Your task to perform on an android device: Open Youtube and go to the subscriptions tab Image 0: 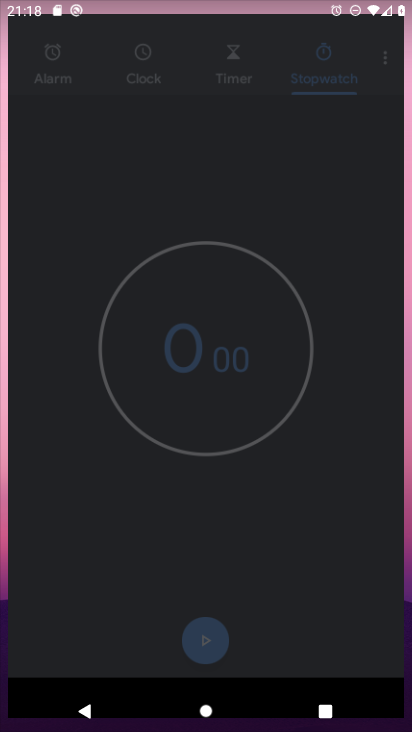
Step 0: drag from (258, 629) to (250, 306)
Your task to perform on an android device: Open Youtube and go to the subscriptions tab Image 1: 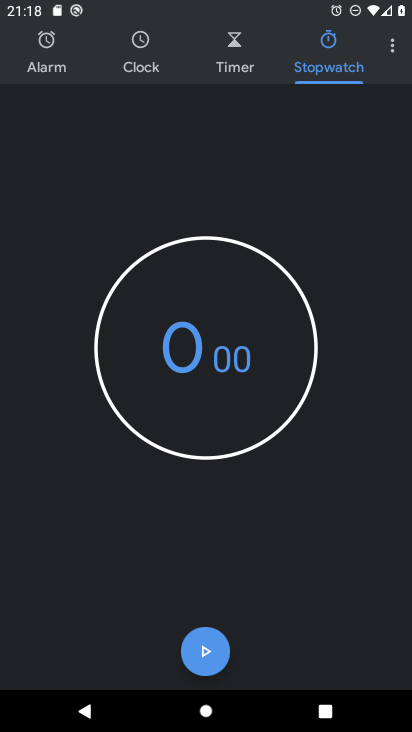
Step 1: press home button
Your task to perform on an android device: Open Youtube and go to the subscriptions tab Image 2: 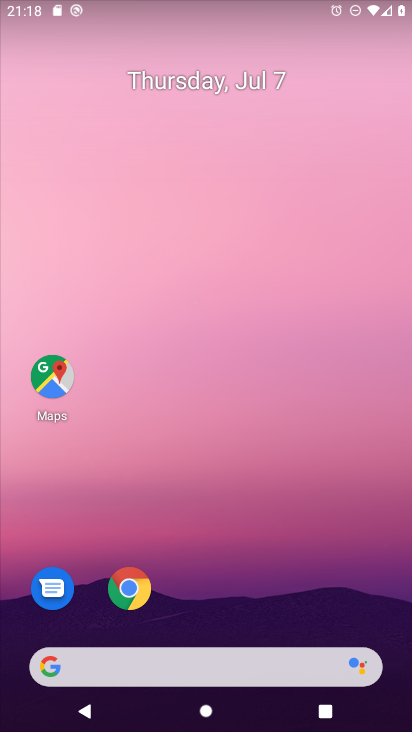
Step 2: drag from (257, 584) to (226, 284)
Your task to perform on an android device: Open Youtube and go to the subscriptions tab Image 3: 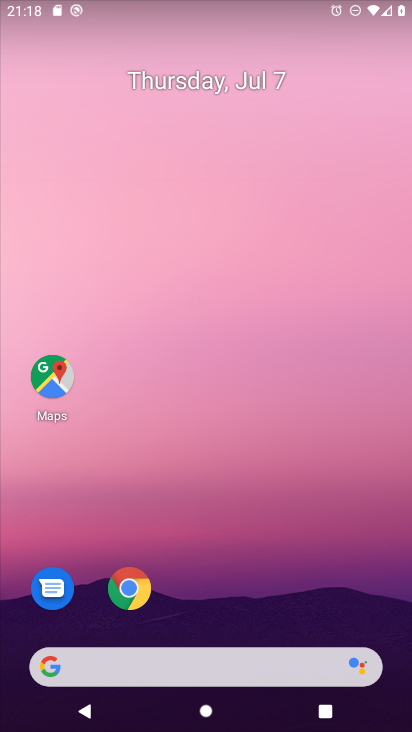
Step 3: drag from (259, 600) to (248, 305)
Your task to perform on an android device: Open Youtube and go to the subscriptions tab Image 4: 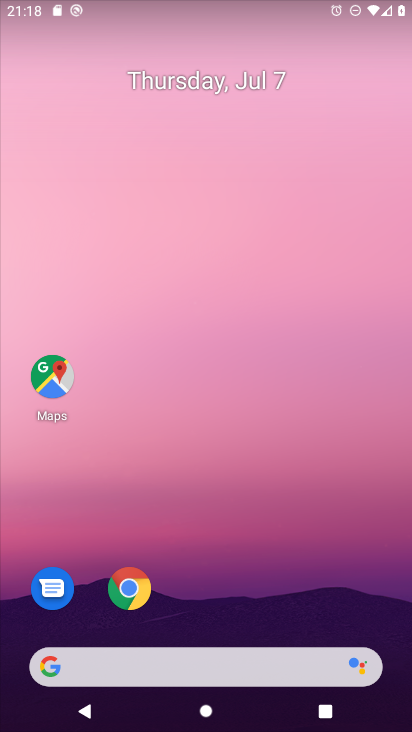
Step 4: drag from (271, 593) to (267, 230)
Your task to perform on an android device: Open Youtube and go to the subscriptions tab Image 5: 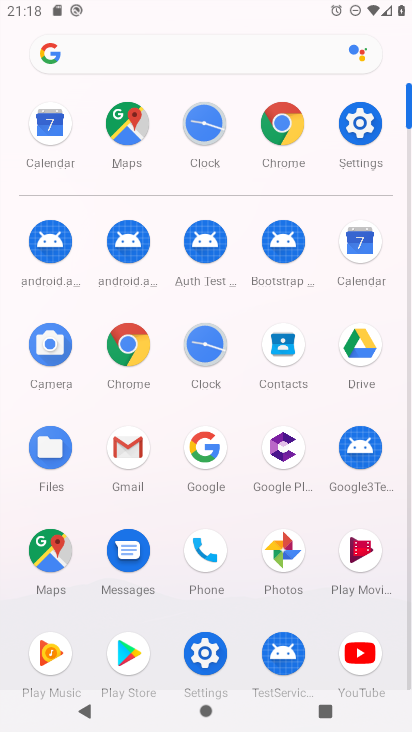
Step 5: drag from (357, 550) to (339, 377)
Your task to perform on an android device: Open Youtube and go to the subscriptions tab Image 6: 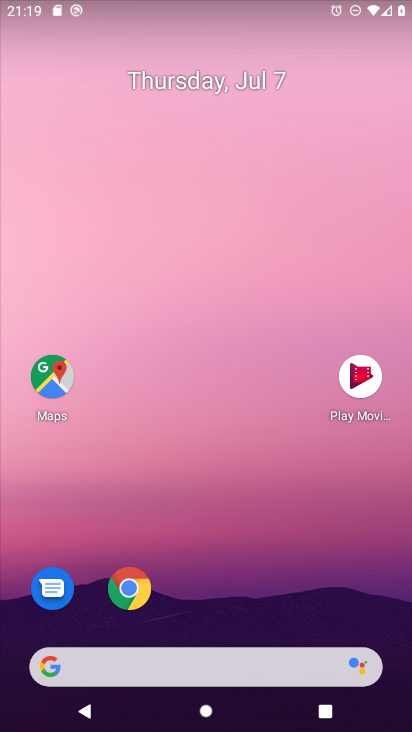
Step 6: drag from (247, 569) to (219, 257)
Your task to perform on an android device: Open Youtube and go to the subscriptions tab Image 7: 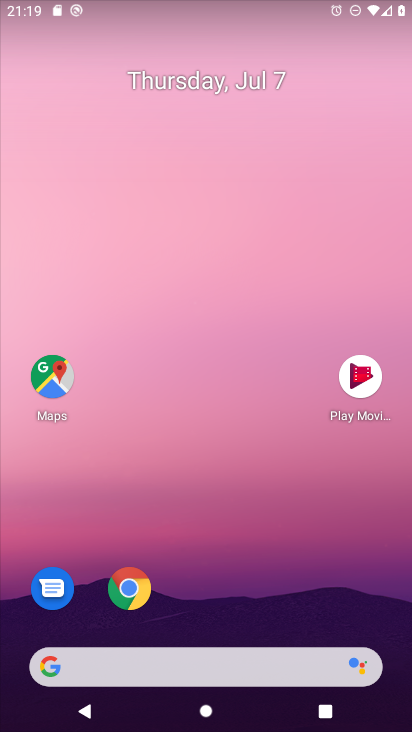
Step 7: drag from (285, 634) to (216, 172)
Your task to perform on an android device: Open Youtube and go to the subscriptions tab Image 8: 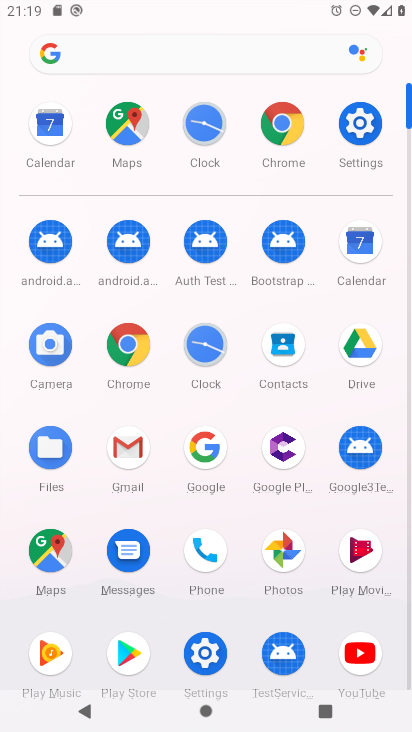
Step 8: click (357, 649)
Your task to perform on an android device: Open Youtube and go to the subscriptions tab Image 9: 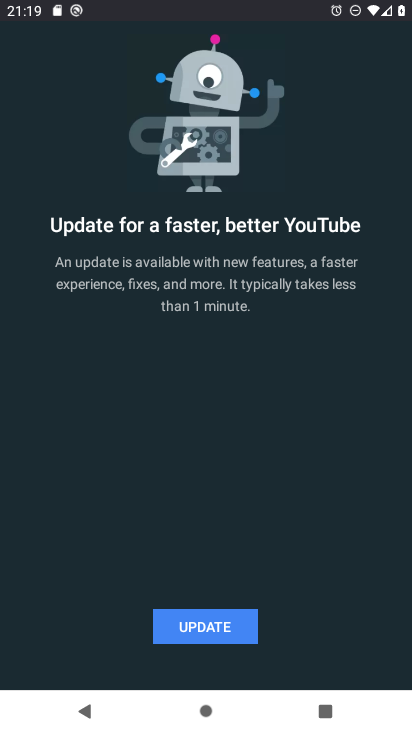
Step 9: task complete